Your task to perform on an android device: Go to accessibility settings Image 0: 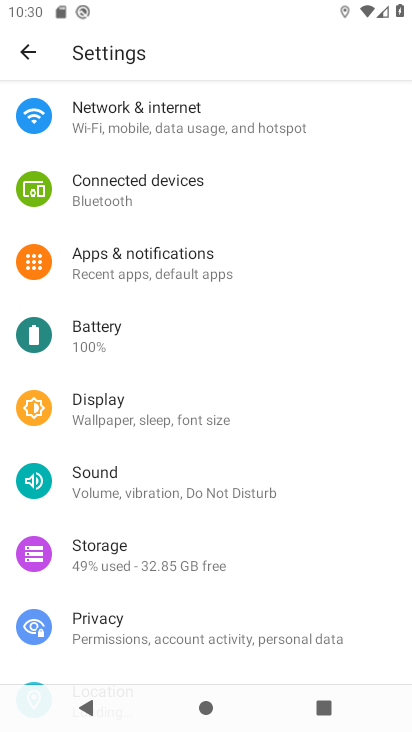
Step 0: drag from (171, 606) to (304, 94)
Your task to perform on an android device: Go to accessibility settings Image 1: 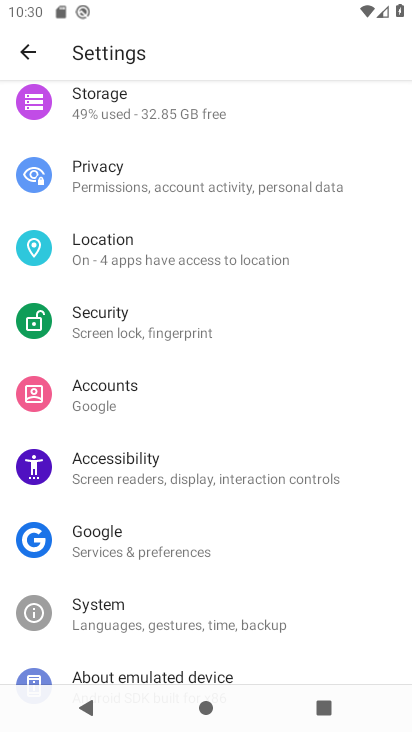
Step 1: click (160, 465)
Your task to perform on an android device: Go to accessibility settings Image 2: 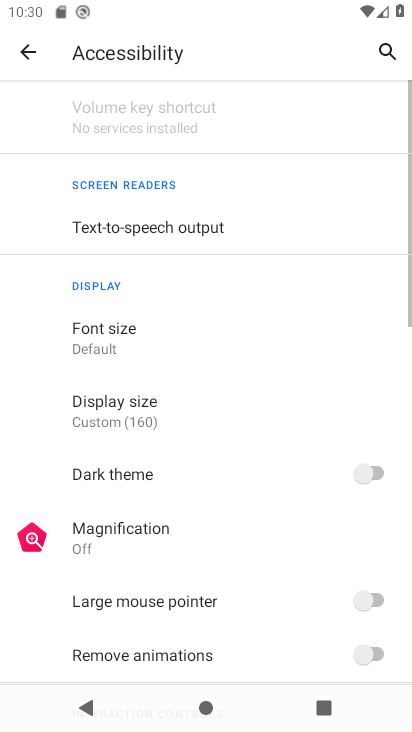
Step 2: task complete